Your task to perform on an android device: toggle improve location accuracy Image 0: 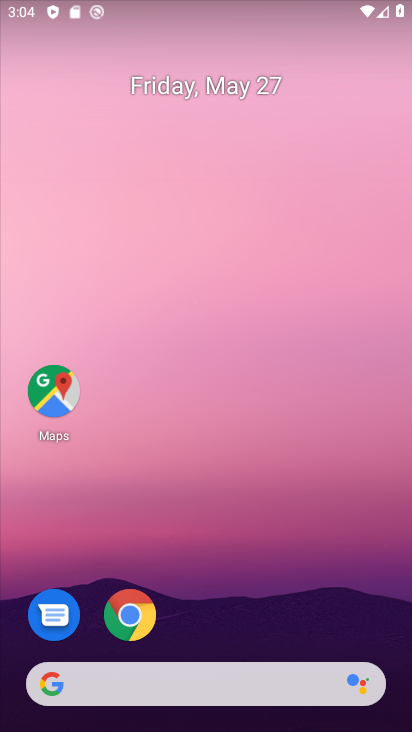
Step 0: drag from (158, 730) to (173, 113)
Your task to perform on an android device: toggle improve location accuracy Image 1: 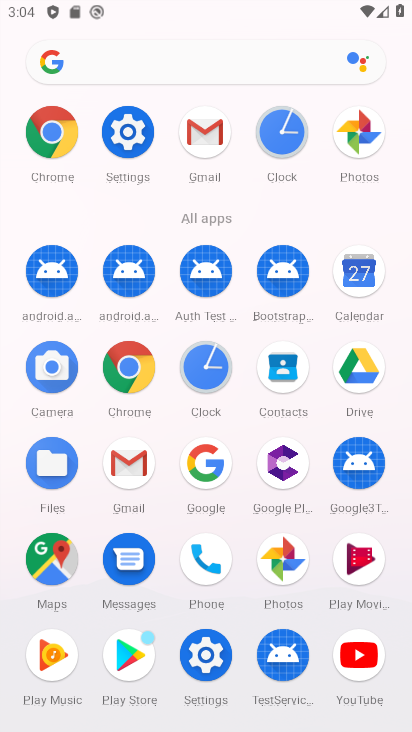
Step 1: click (219, 667)
Your task to perform on an android device: toggle improve location accuracy Image 2: 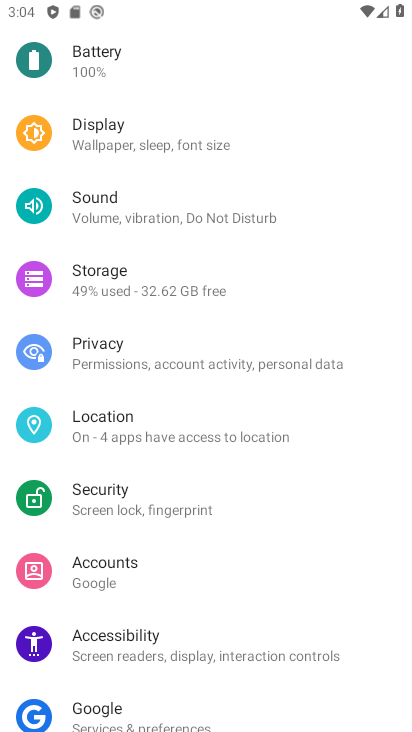
Step 2: drag from (176, 678) to (190, 454)
Your task to perform on an android device: toggle improve location accuracy Image 3: 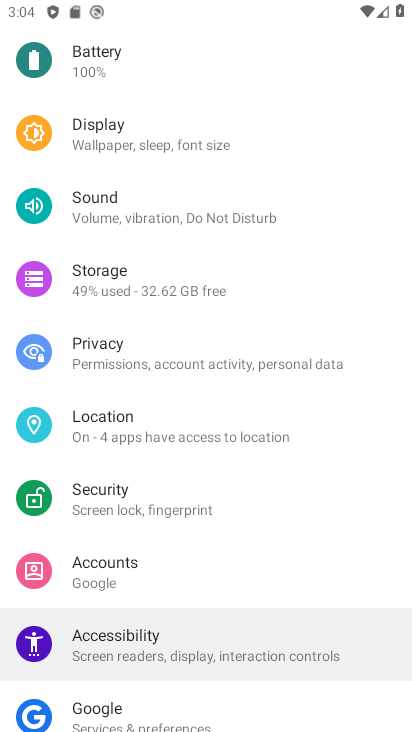
Step 3: click (180, 433)
Your task to perform on an android device: toggle improve location accuracy Image 4: 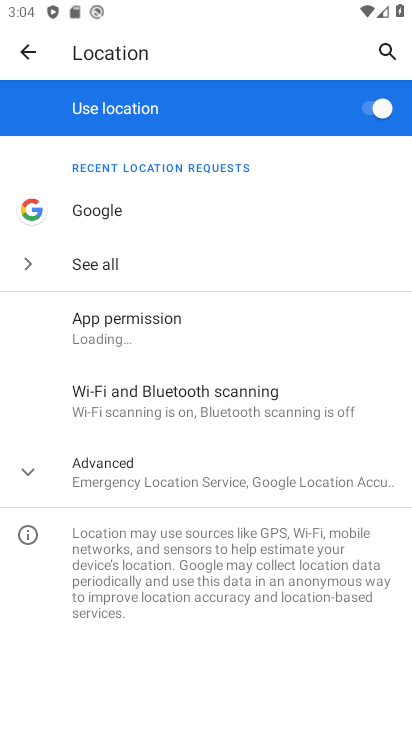
Step 4: click (184, 490)
Your task to perform on an android device: toggle improve location accuracy Image 5: 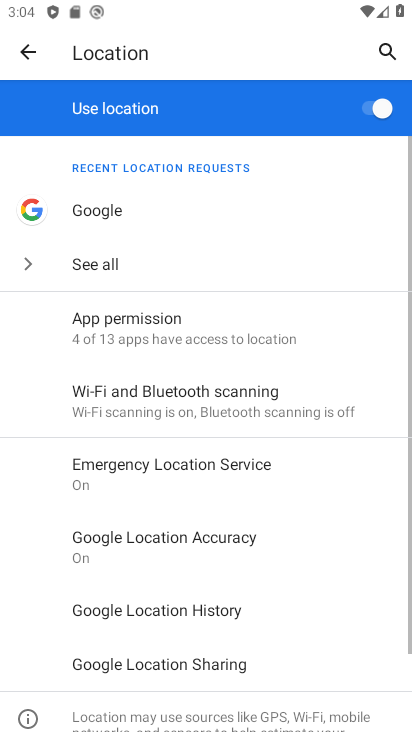
Step 5: click (195, 554)
Your task to perform on an android device: toggle improve location accuracy Image 6: 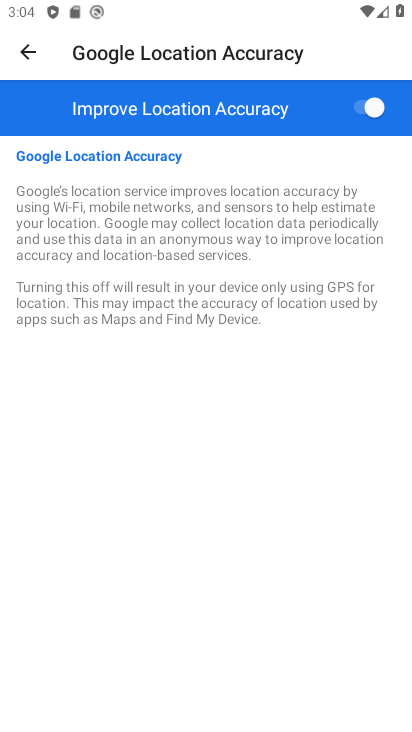
Step 6: click (373, 110)
Your task to perform on an android device: toggle improve location accuracy Image 7: 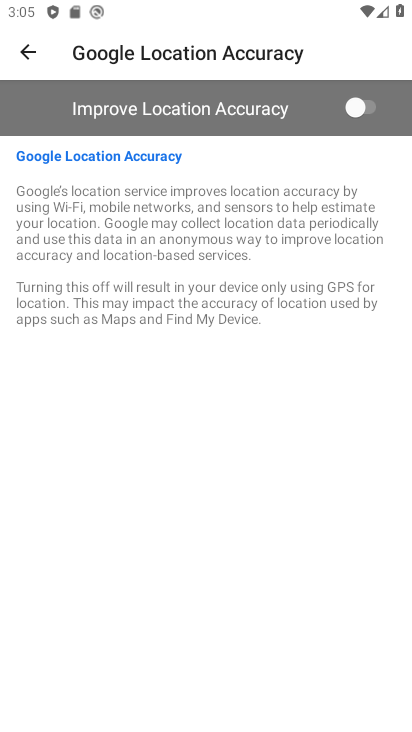
Step 7: task complete